Your task to perform on an android device: What is the recent news? Image 0: 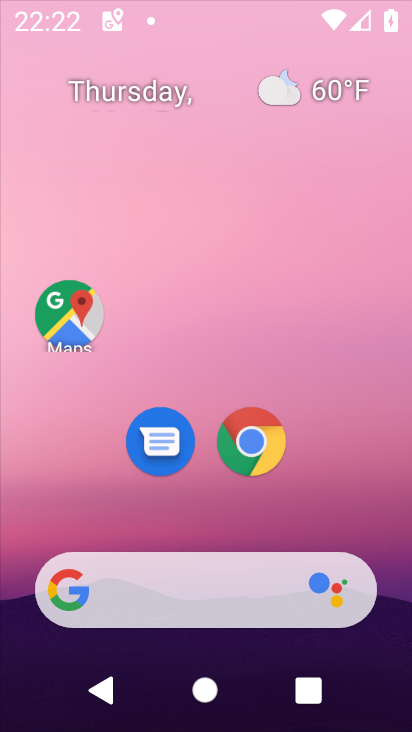
Step 0: click (182, 245)
Your task to perform on an android device: What is the recent news? Image 1: 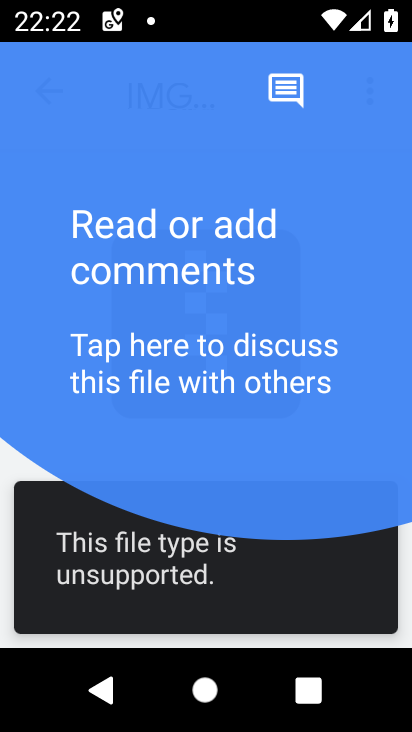
Step 1: task complete